Your task to perform on an android device: Open privacy settings Image 0: 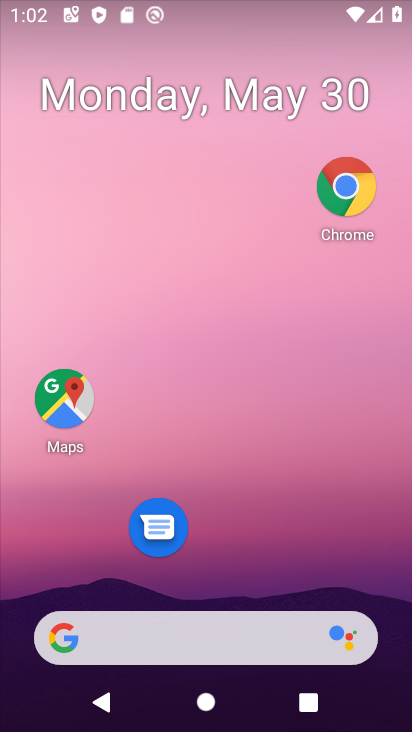
Step 0: drag from (198, 492) to (227, 129)
Your task to perform on an android device: Open privacy settings Image 1: 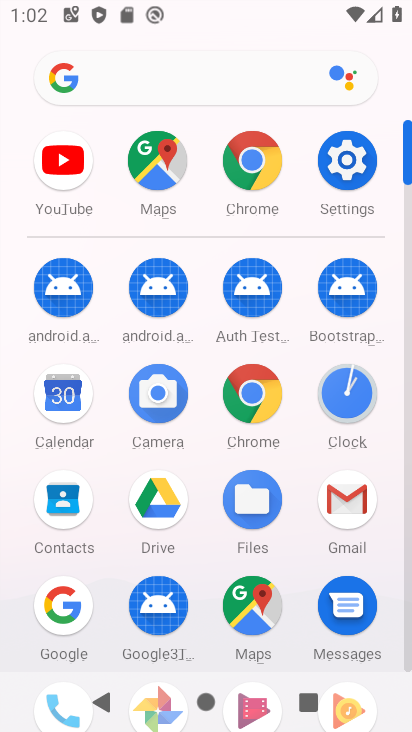
Step 1: click (366, 162)
Your task to perform on an android device: Open privacy settings Image 2: 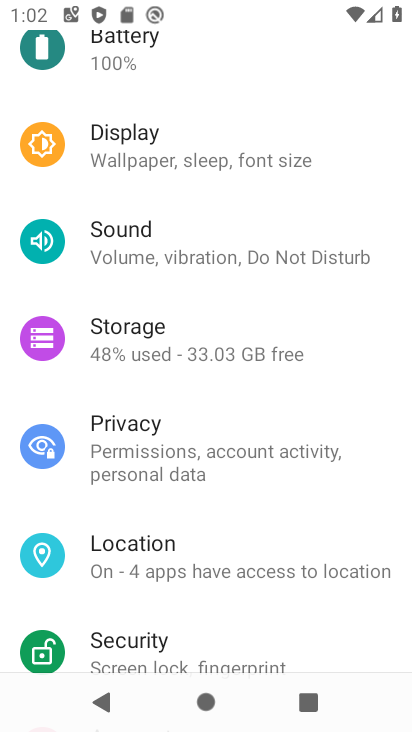
Step 2: click (193, 451)
Your task to perform on an android device: Open privacy settings Image 3: 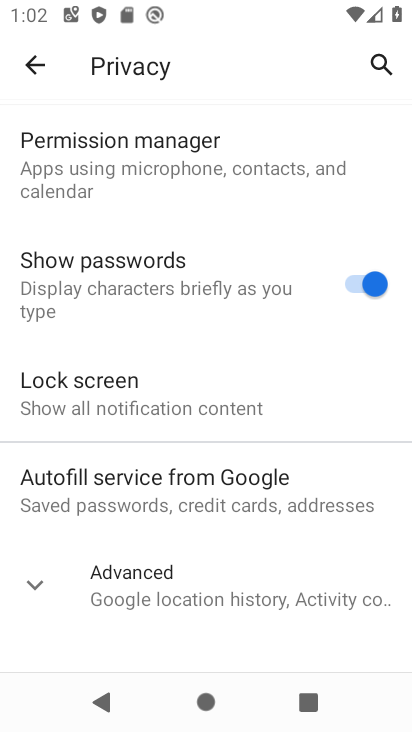
Step 3: task complete